Your task to perform on an android device: Open eBay Image 0: 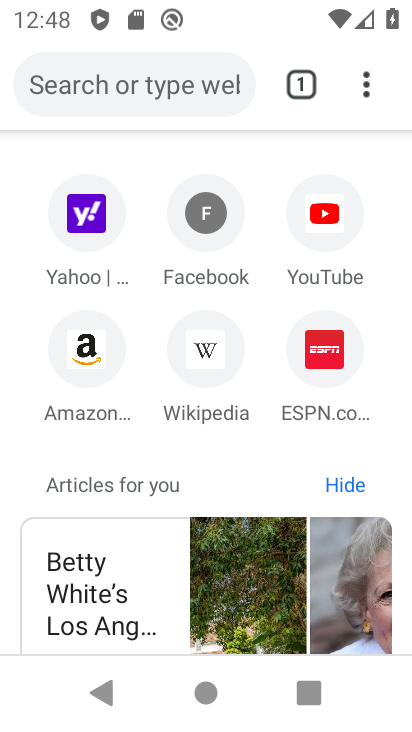
Step 0: click (82, 78)
Your task to perform on an android device: Open eBay Image 1: 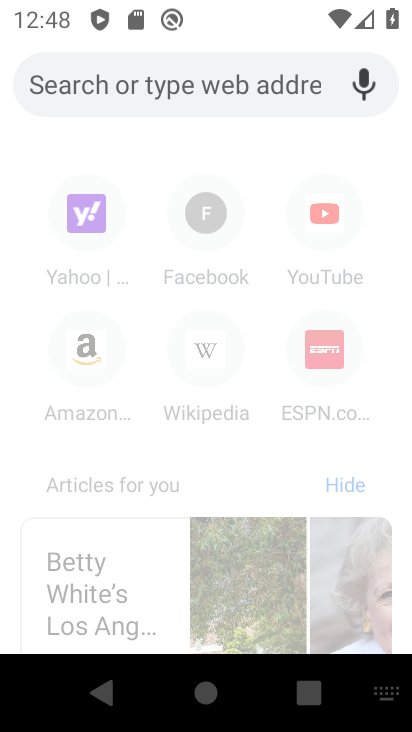
Step 1: type "ebay"
Your task to perform on an android device: Open eBay Image 2: 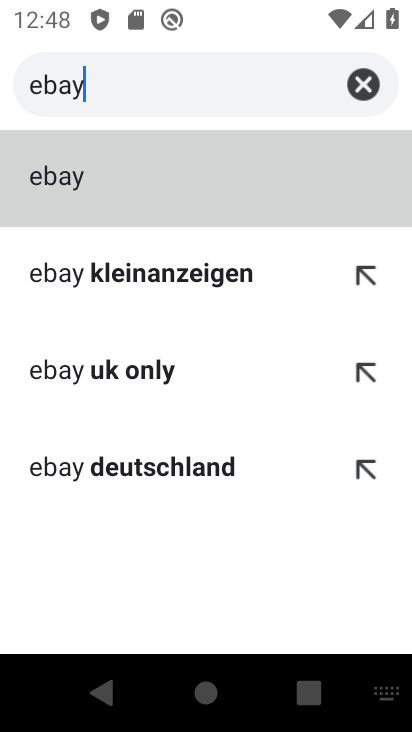
Step 2: click (179, 174)
Your task to perform on an android device: Open eBay Image 3: 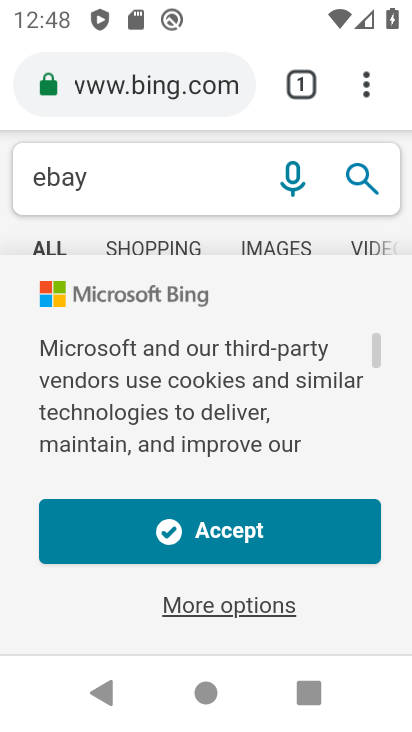
Step 3: task complete